Your task to perform on an android device: open chrome and create a bookmark for the current page Image 0: 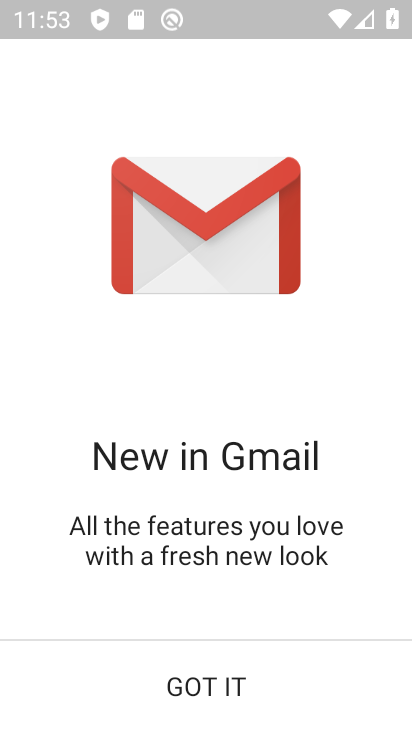
Step 0: press home button
Your task to perform on an android device: open chrome and create a bookmark for the current page Image 1: 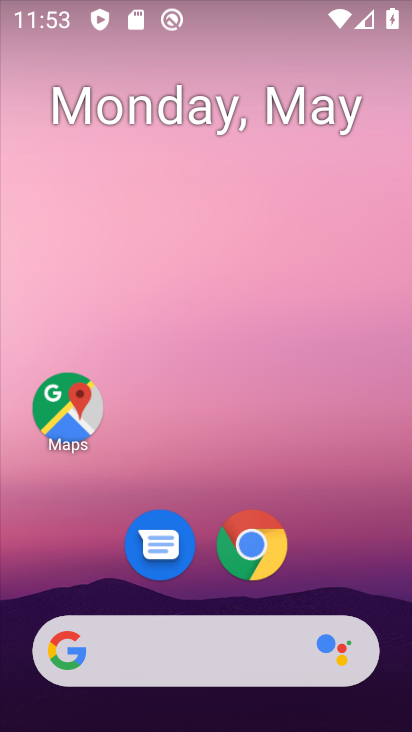
Step 1: click (260, 550)
Your task to perform on an android device: open chrome and create a bookmark for the current page Image 2: 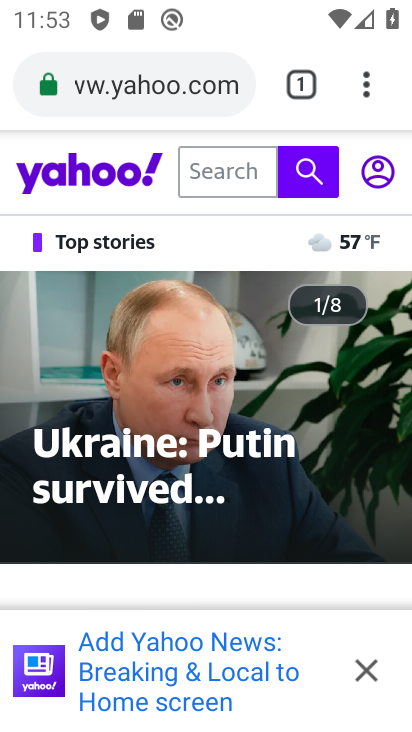
Step 2: click (369, 80)
Your task to perform on an android device: open chrome and create a bookmark for the current page Image 3: 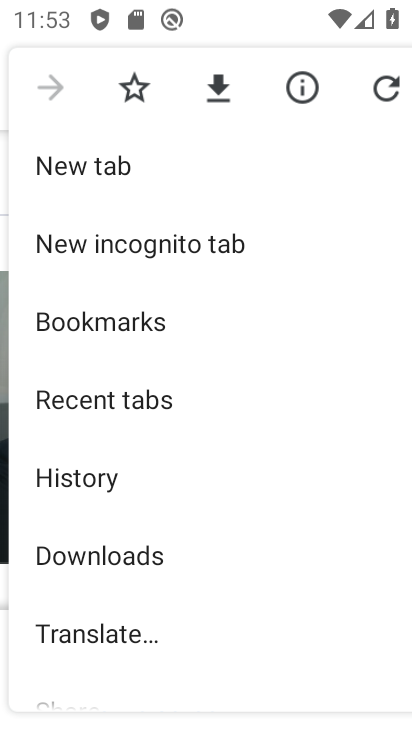
Step 3: click (137, 84)
Your task to perform on an android device: open chrome and create a bookmark for the current page Image 4: 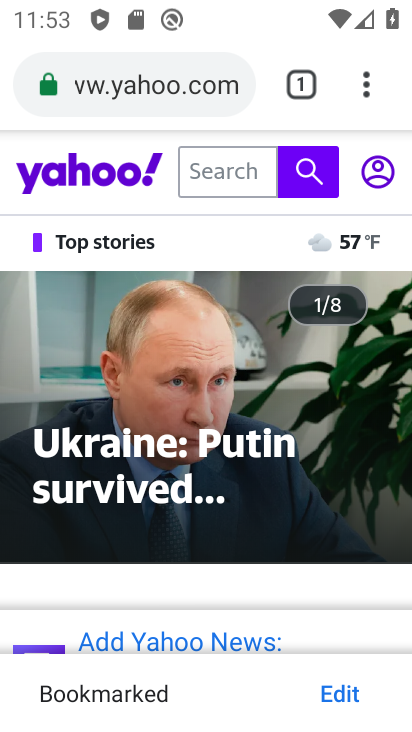
Step 4: task complete